Your task to perform on an android device: What's the news in Sri Lanka? Image 0: 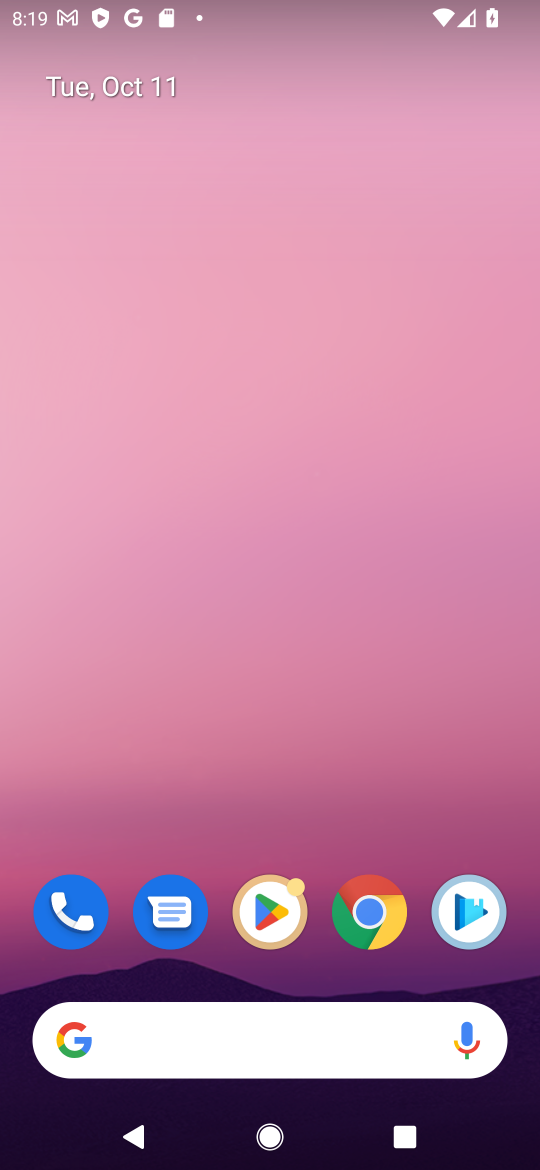
Step 0: click (371, 915)
Your task to perform on an android device: What's the news in Sri Lanka? Image 1: 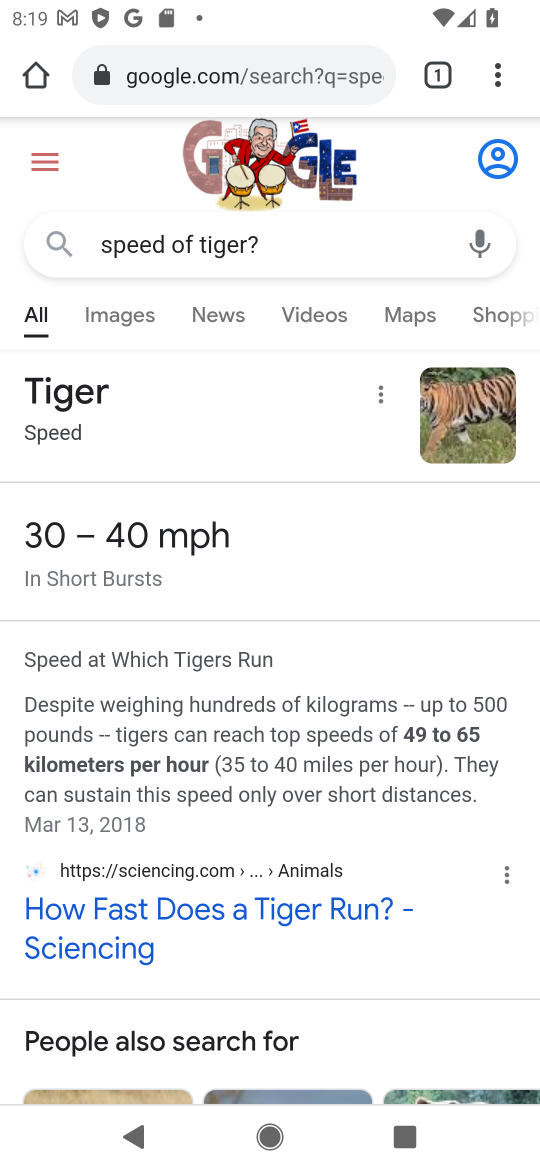
Step 1: click (278, 57)
Your task to perform on an android device: What's the news in Sri Lanka? Image 2: 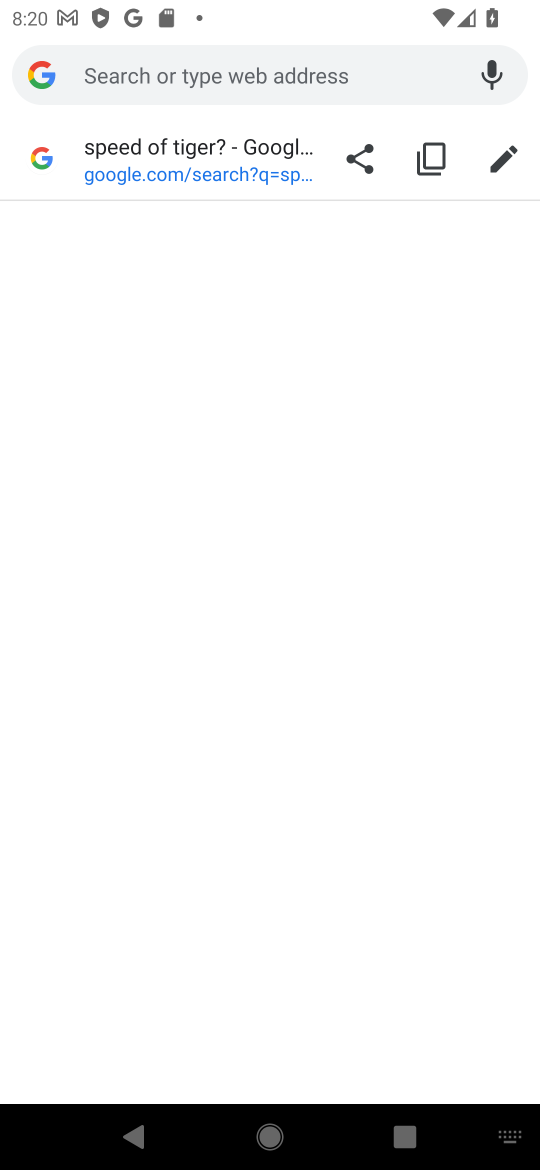
Step 2: type "news in sri lanka?"
Your task to perform on an android device: What's the news in Sri Lanka? Image 3: 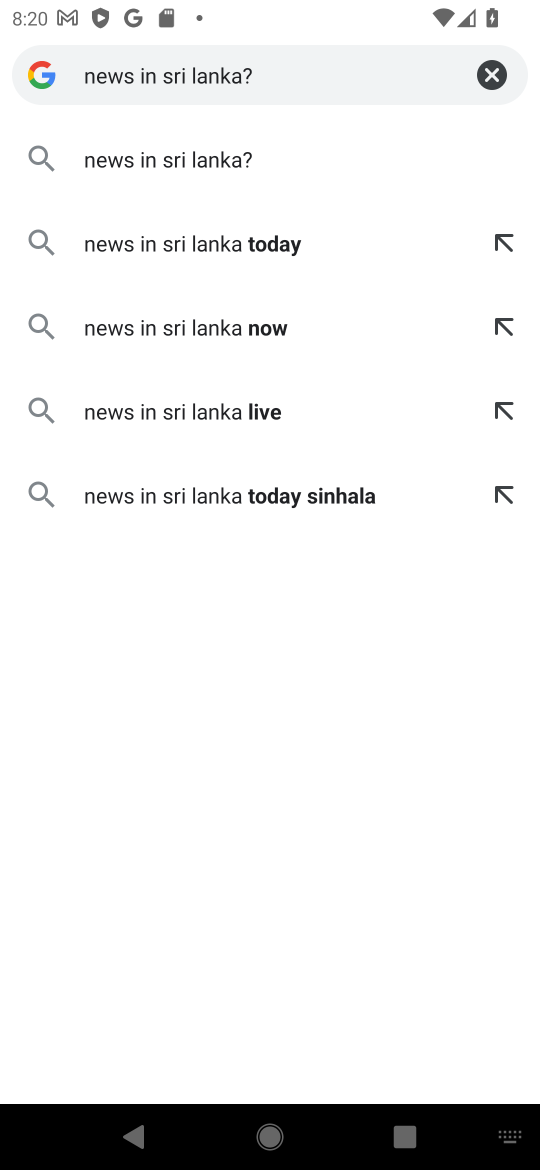
Step 3: click (204, 160)
Your task to perform on an android device: What's the news in Sri Lanka? Image 4: 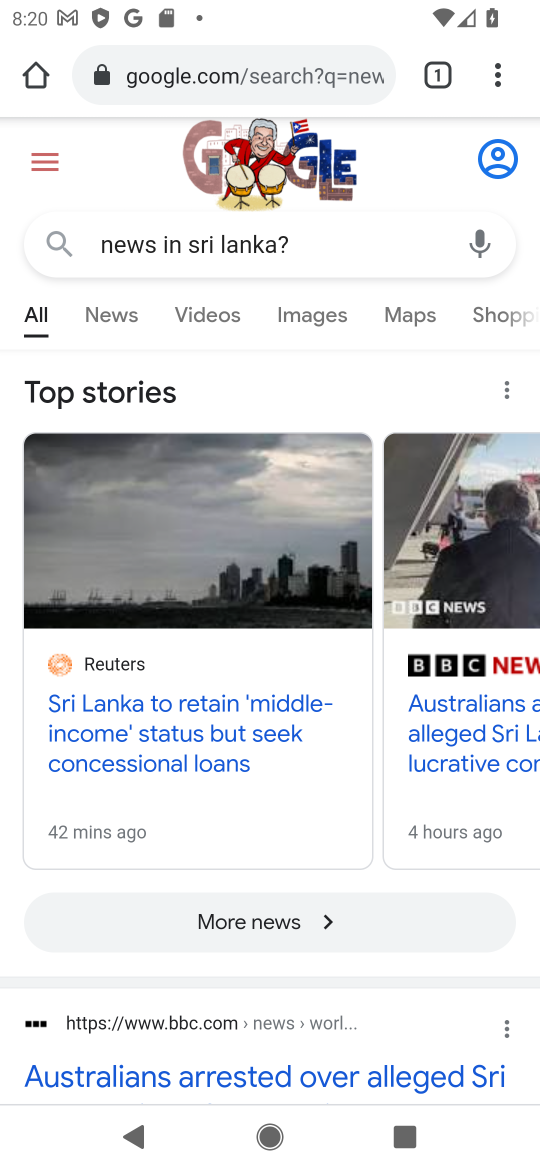
Step 4: click (150, 718)
Your task to perform on an android device: What's the news in Sri Lanka? Image 5: 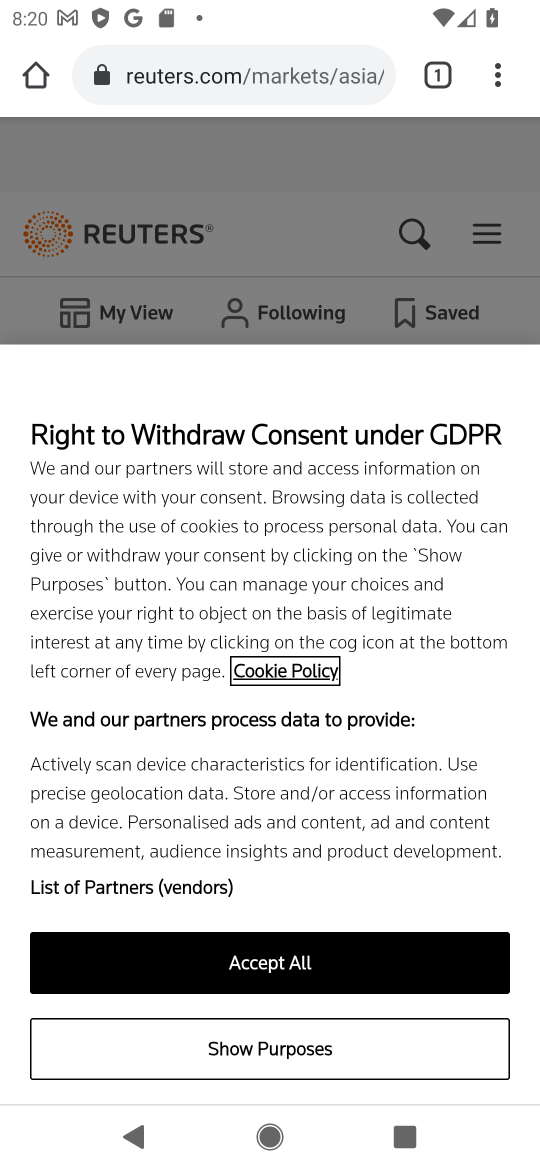
Step 5: click (264, 962)
Your task to perform on an android device: What's the news in Sri Lanka? Image 6: 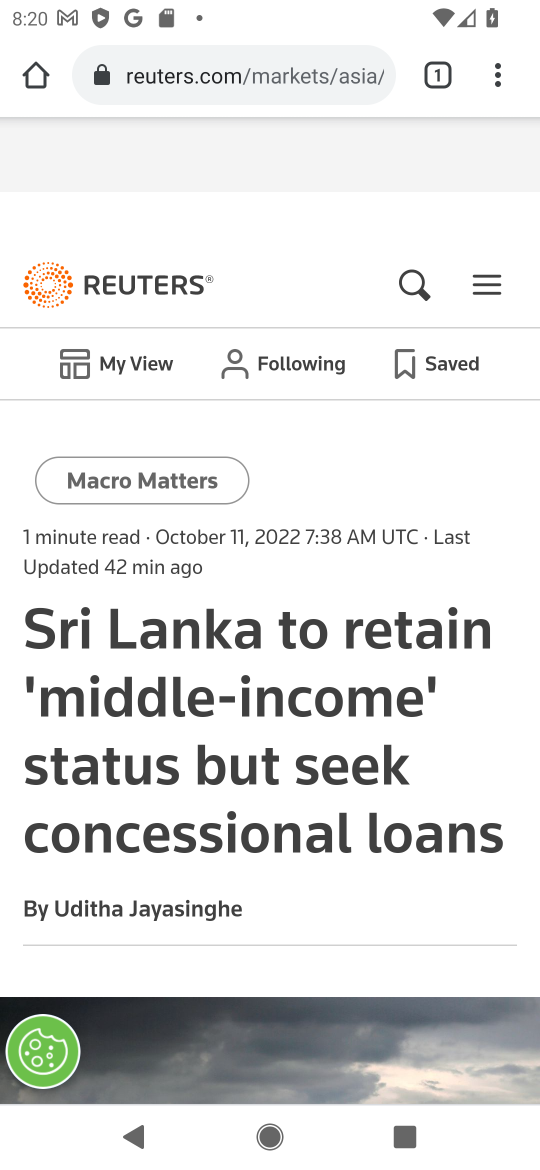
Step 6: task complete